Your task to perform on an android device: toggle notifications settings in the gmail app Image 0: 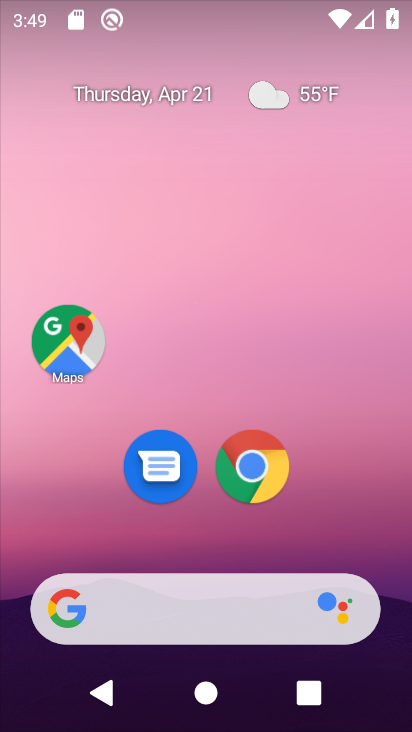
Step 0: drag from (243, 432) to (275, 44)
Your task to perform on an android device: toggle notifications settings in the gmail app Image 1: 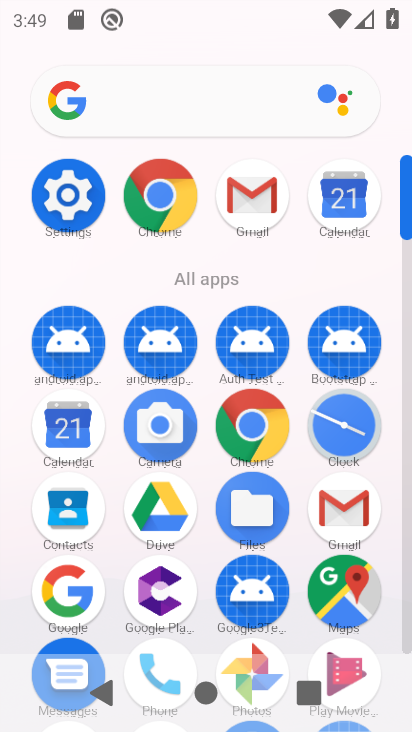
Step 1: click (248, 198)
Your task to perform on an android device: toggle notifications settings in the gmail app Image 2: 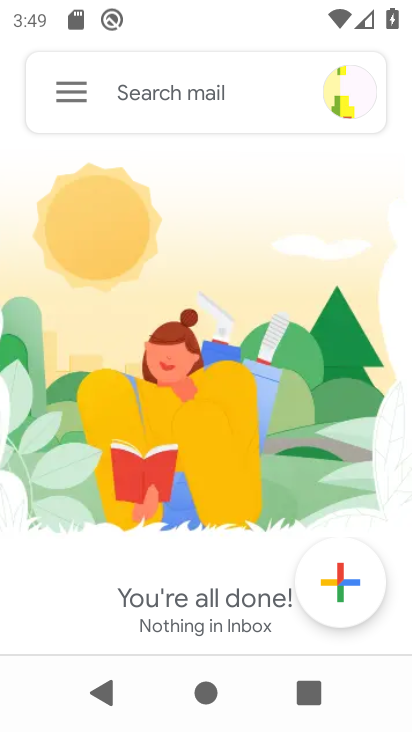
Step 2: click (56, 99)
Your task to perform on an android device: toggle notifications settings in the gmail app Image 3: 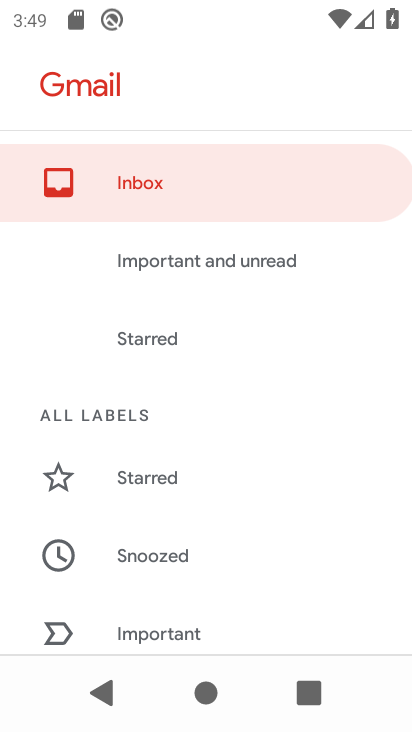
Step 3: drag from (180, 429) to (239, 64)
Your task to perform on an android device: toggle notifications settings in the gmail app Image 4: 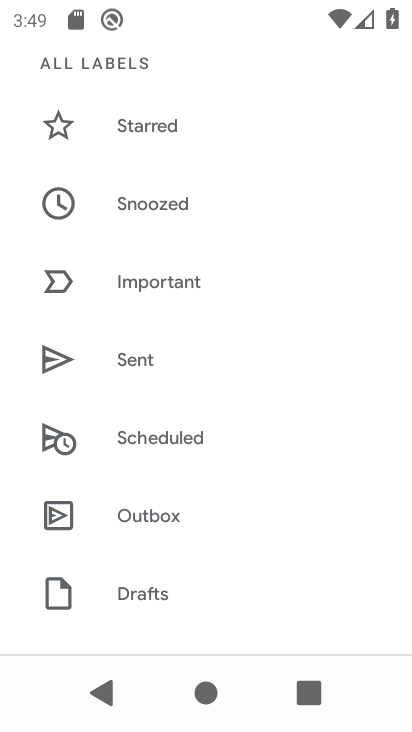
Step 4: drag from (189, 487) to (229, 38)
Your task to perform on an android device: toggle notifications settings in the gmail app Image 5: 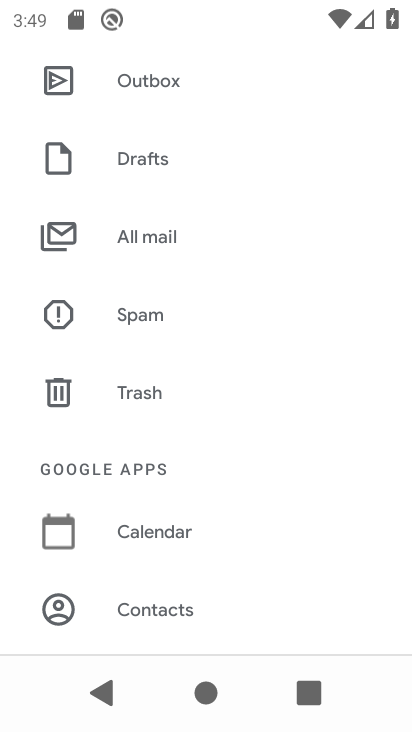
Step 5: drag from (184, 431) to (234, 57)
Your task to perform on an android device: toggle notifications settings in the gmail app Image 6: 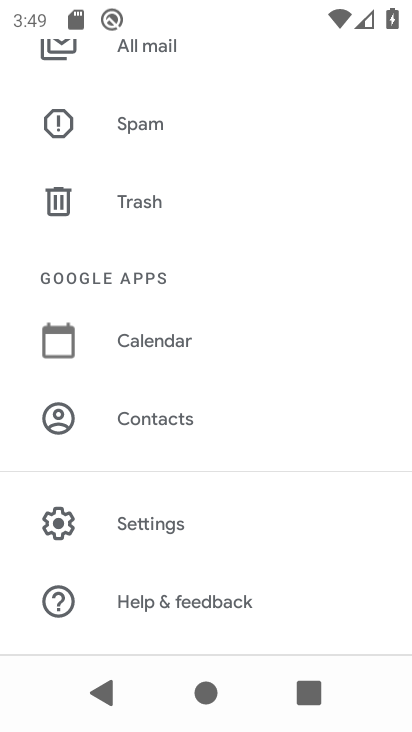
Step 6: click (186, 517)
Your task to perform on an android device: toggle notifications settings in the gmail app Image 7: 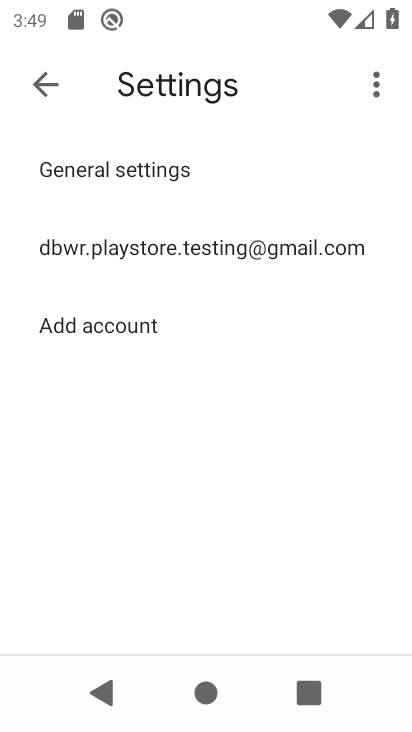
Step 7: click (202, 232)
Your task to perform on an android device: toggle notifications settings in the gmail app Image 8: 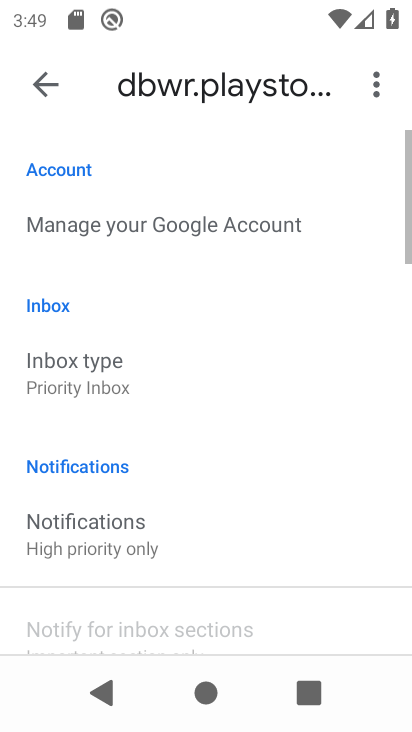
Step 8: drag from (194, 510) to (198, 132)
Your task to perform on an android device: toggle notifications settings in the gmail app Image 9: 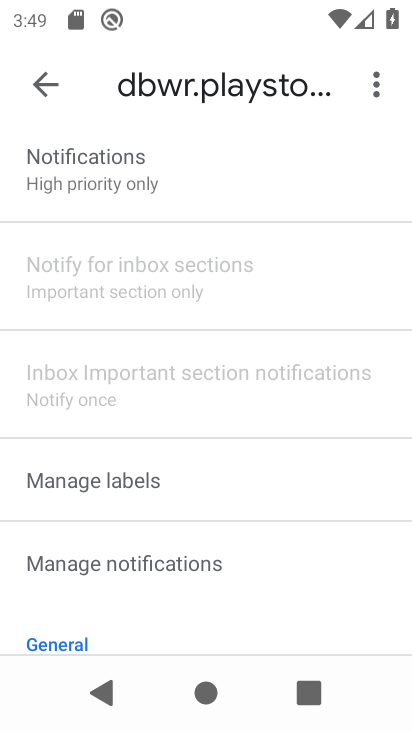
Step 9: click (182, 156)
Your task to perform on an android device: toggle notifications settings in the gmail app Image 10: 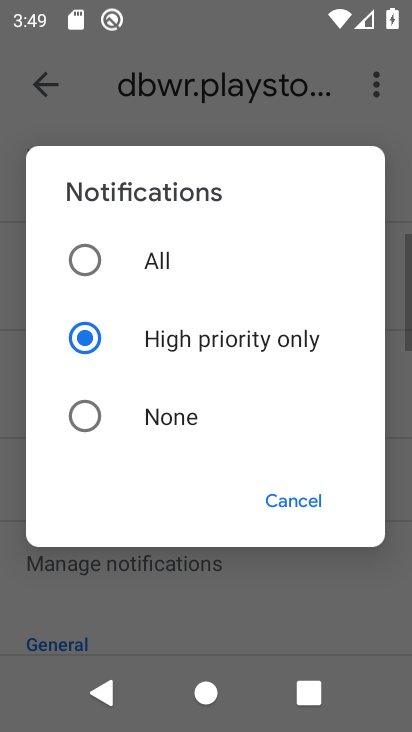
Step 10: click (129, 251)
Your task to perform on an android device: toggle notifications settings in the gmail app Image 11: 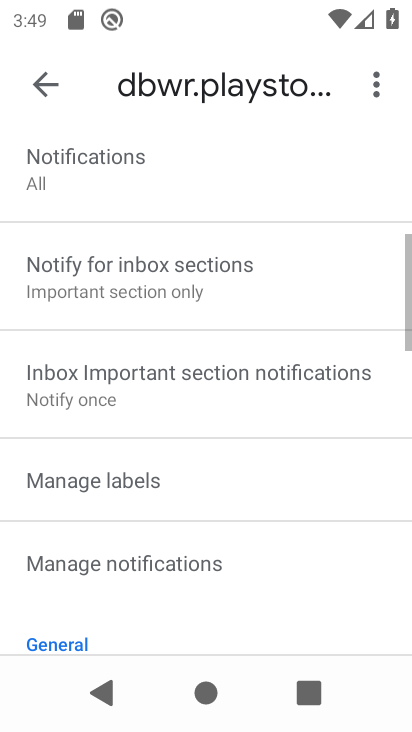
Step 11: task complete